Your task to perform on an android device: Find coffee shops on Maps Image 0: 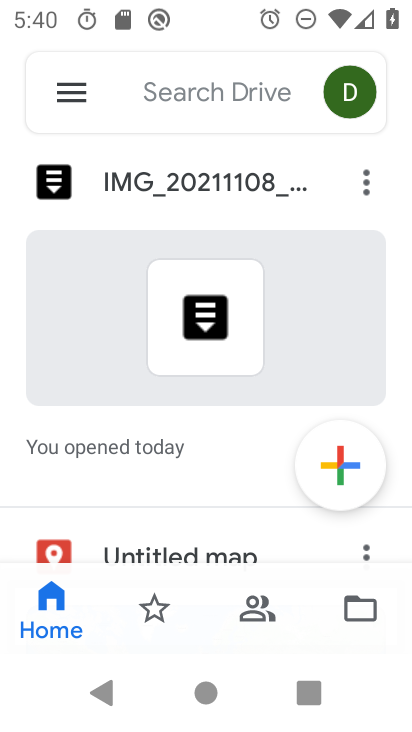
Step 0: press home button
Your task to perform on an android device: Find coffee shops on Maps Image 1: 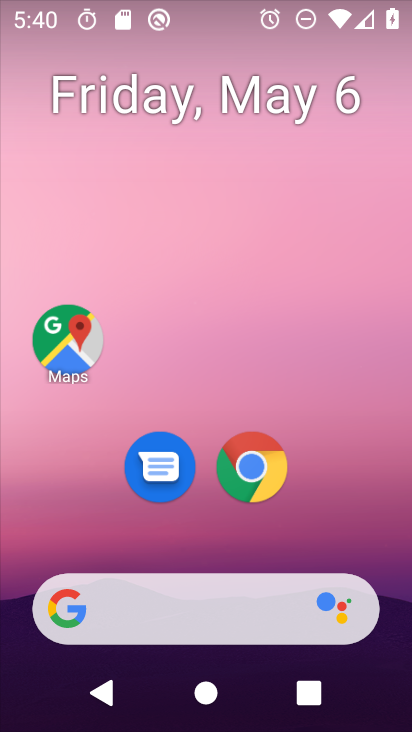
Step 1: drag from (340, 508) to (203, 109)
Your task to perform on an android device: Find coffee shops on Maps Image 2: 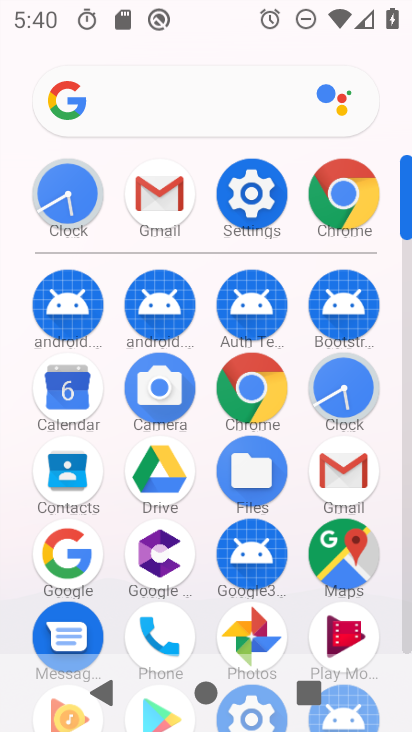
Step 2: click (342, 579)
Your task to perform on an android device: Find coffee shops on Maps Image 3: 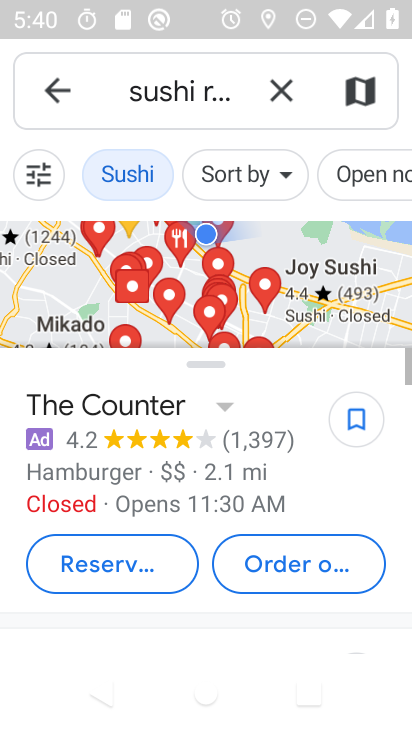
Step 3: click (275, 91)
Your task to perform on an android device: Find coffee shops on Maps Image 4: 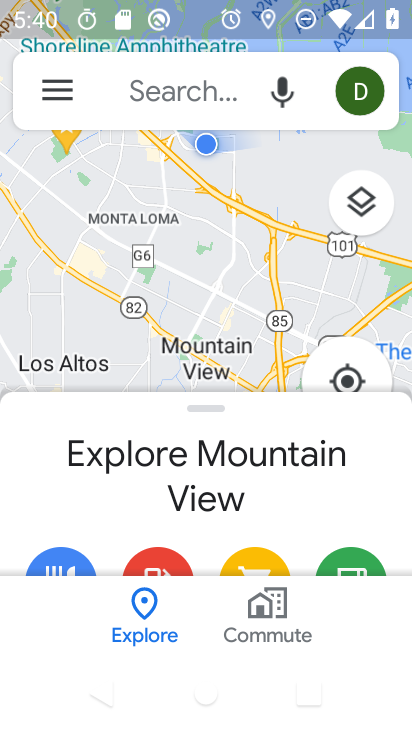
Step 4: click (155, 97)
Your task to perform on an android device: Find coffee shops on Maps Image 5: 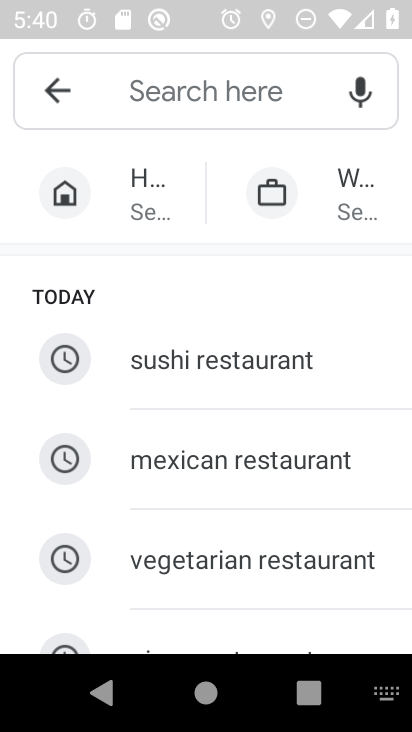
Step 5: click (192, 104)
Your task to perform on an android device: Find coffee shops on Maps Image 6: 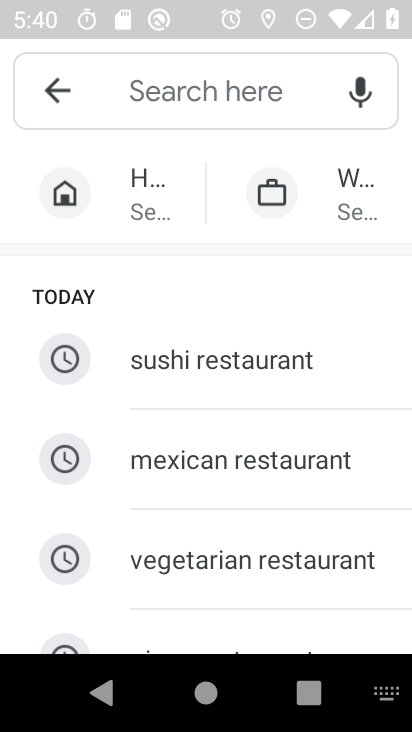
Step 6: drag from (233, 520) to (219, 212)
Your task to perform on an android device: Find coffee shops on Maps Image 7: 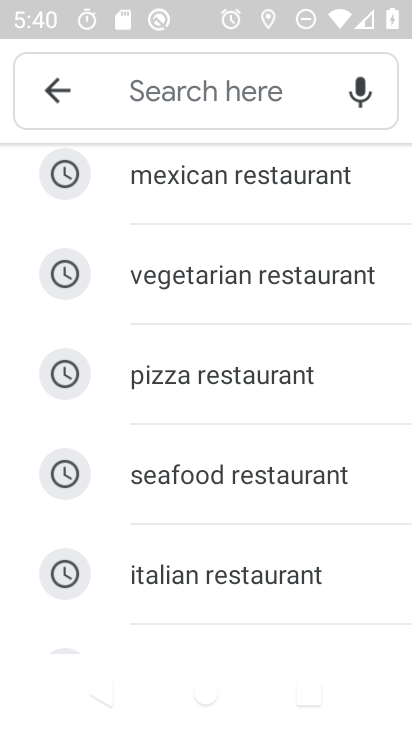
Step 7: type "coffee shops"
Your task to perform on an android device: Find coffee shops on Maps Image 8: 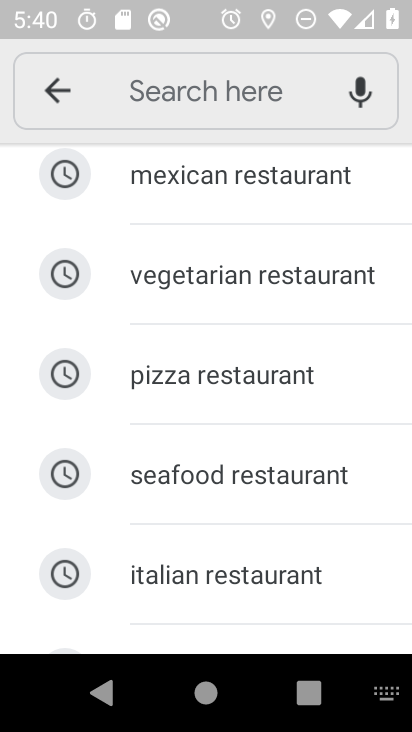
Step 8: drag from (329, 281) to (327, 521)
Your task to perform on an android device: Find coffee shops on Maps Image 9: 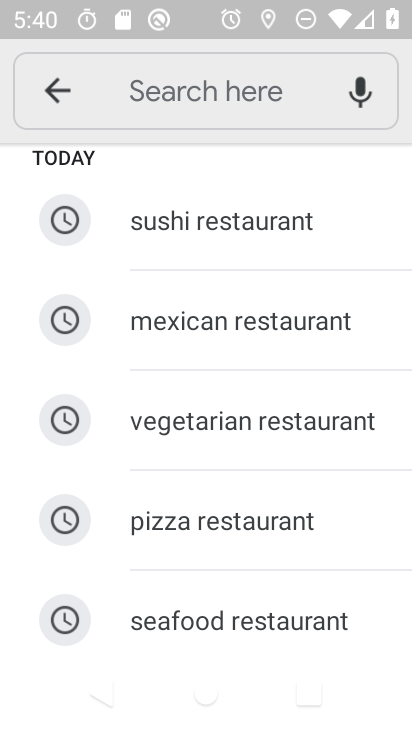
Step 9: drag from (219, 251) to (227, 501)
Your task to perform on an android device: Find coffee shops on Maps Image 10: 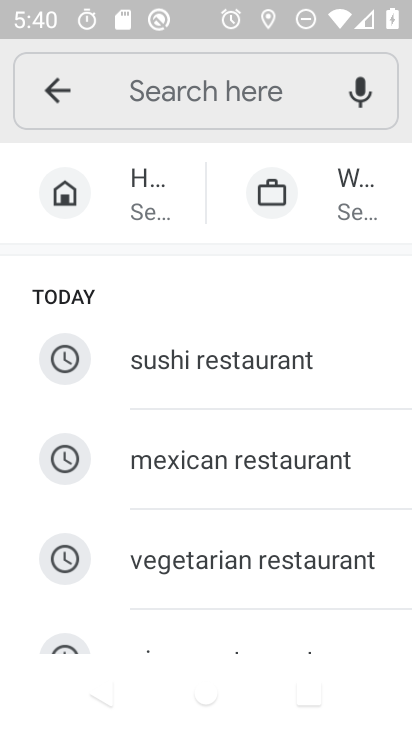
Step 10: drag from (259, 300) to (296, 612)
Your task to perform on an android device: Find coffee shops on Maps Image 11: 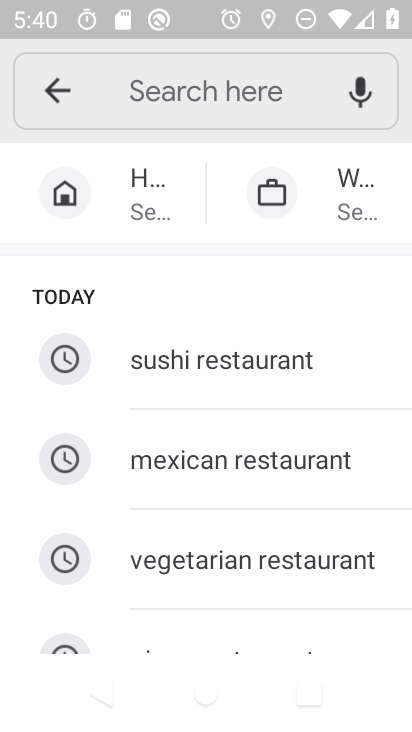
Step 11: click (172, 93)
Your task to perform on an android device: Find coffee shops on Maps Image 12: 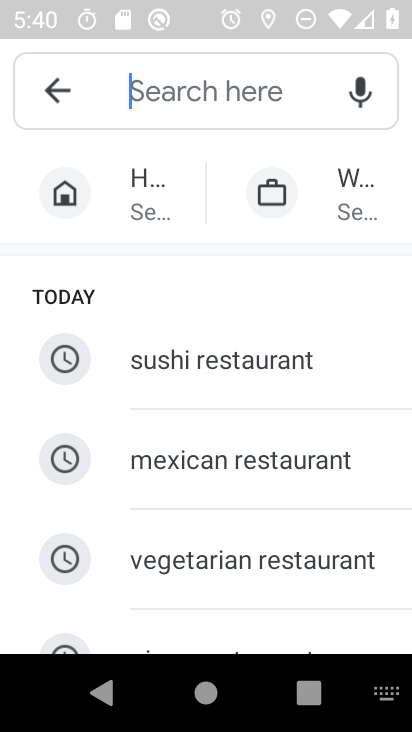
Step 12: type "coffee shops"
Your task to perform on an android device: Find coffee shops on Maps Image 13: 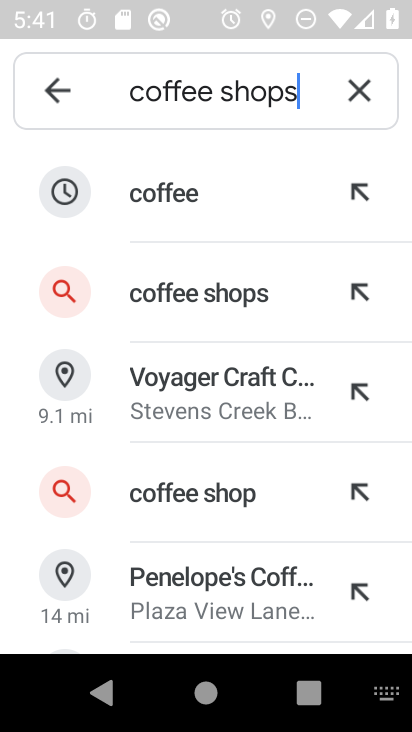
Step 13: click (248, 299)
Your task to perform on an android device: Find coffee shops on Maps Image 14: 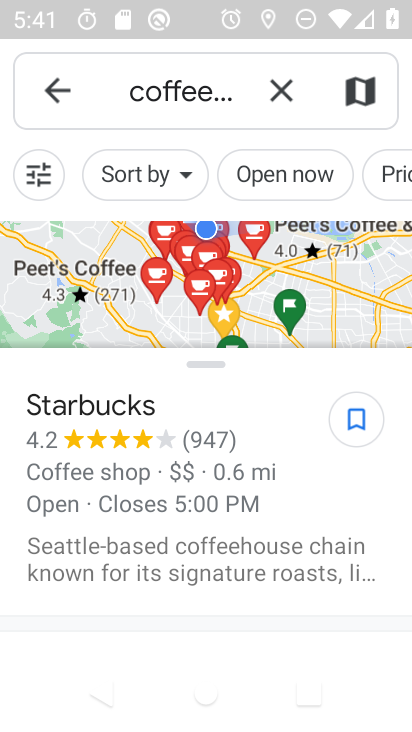
Step 14: task complete